Your task to perform on an android device: turn on the 12-hour format for clock Image 0: 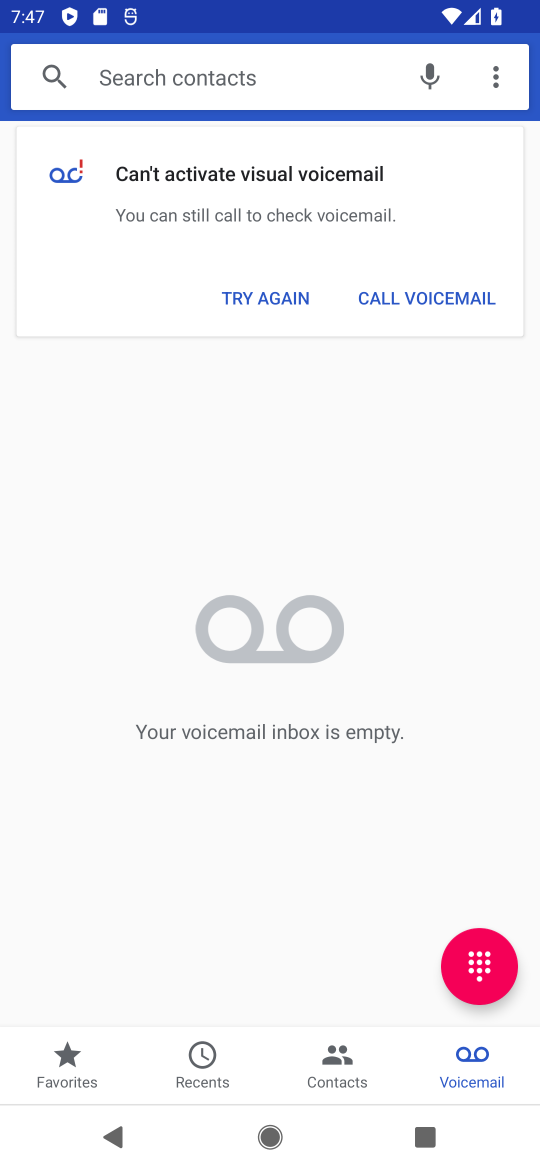
Step 0: press back button
Your task to perform on an android device: turn on the 12-hour format for clock Image 1: 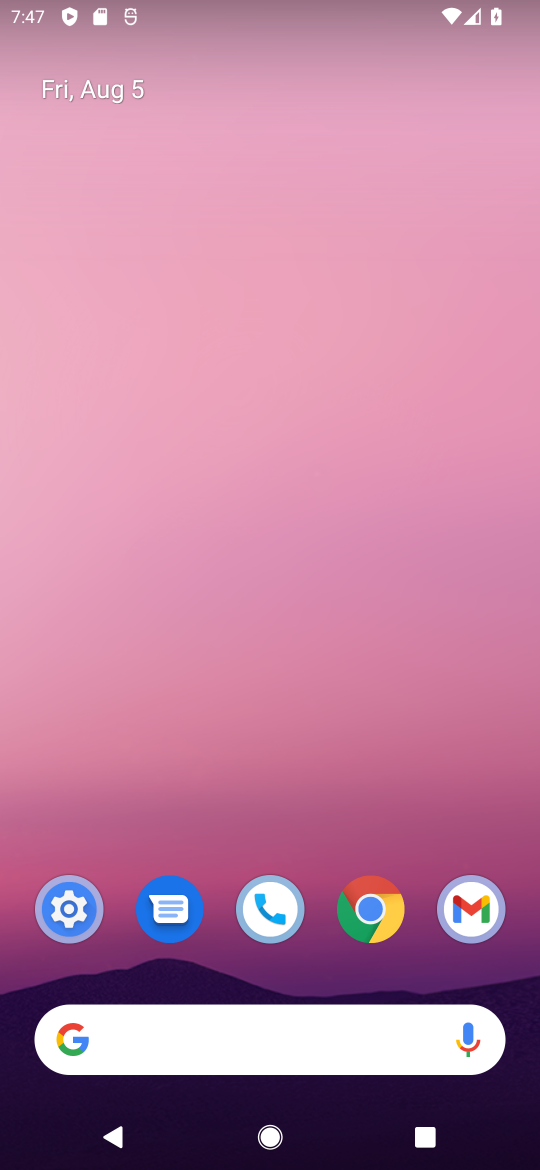
Step 1: drag from (410, 811) to (331, 81)
Your task to perform on an android device: turn on the 12-hour format for clock Image 2: 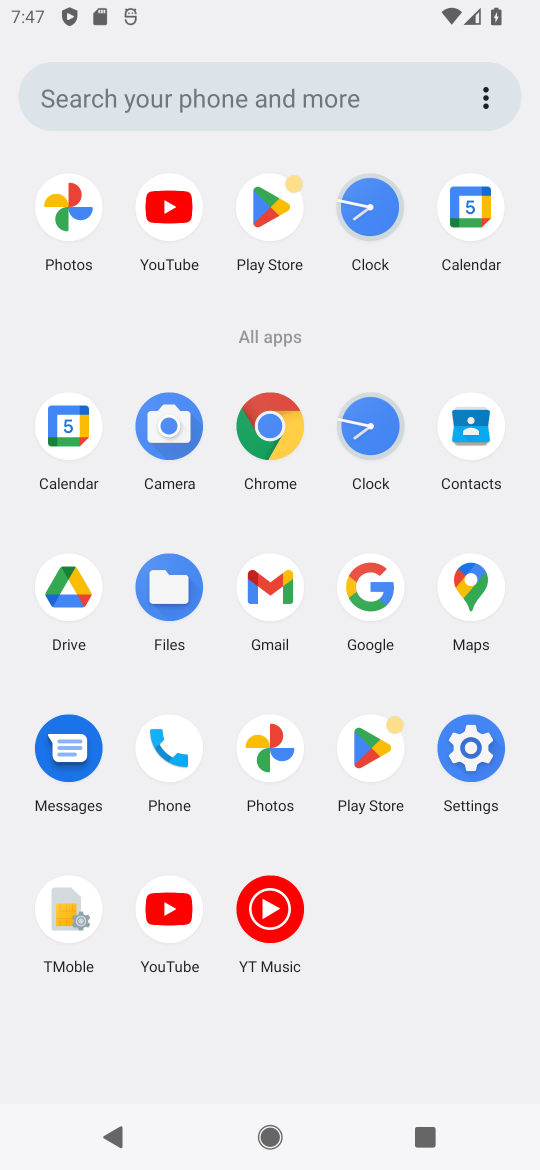
Step 2: click (351, 423)
Your task to perform on an android device: turn on the 12-hour format for clock Image 3: 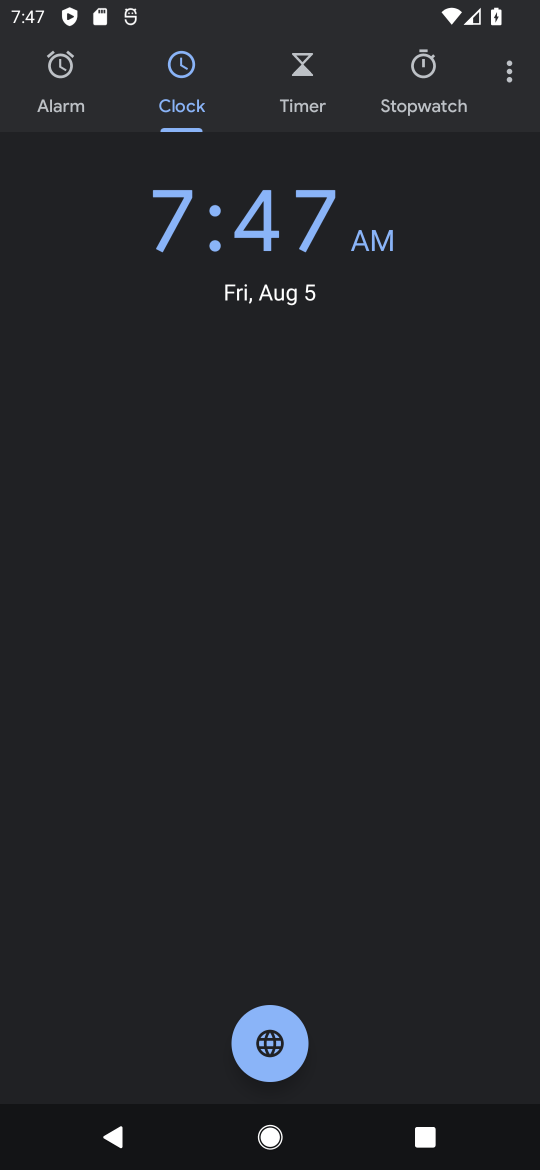
Step 3: click (524, 72)
Your task to perform on an android device: turn on the 12-hour format for clock Image 4: 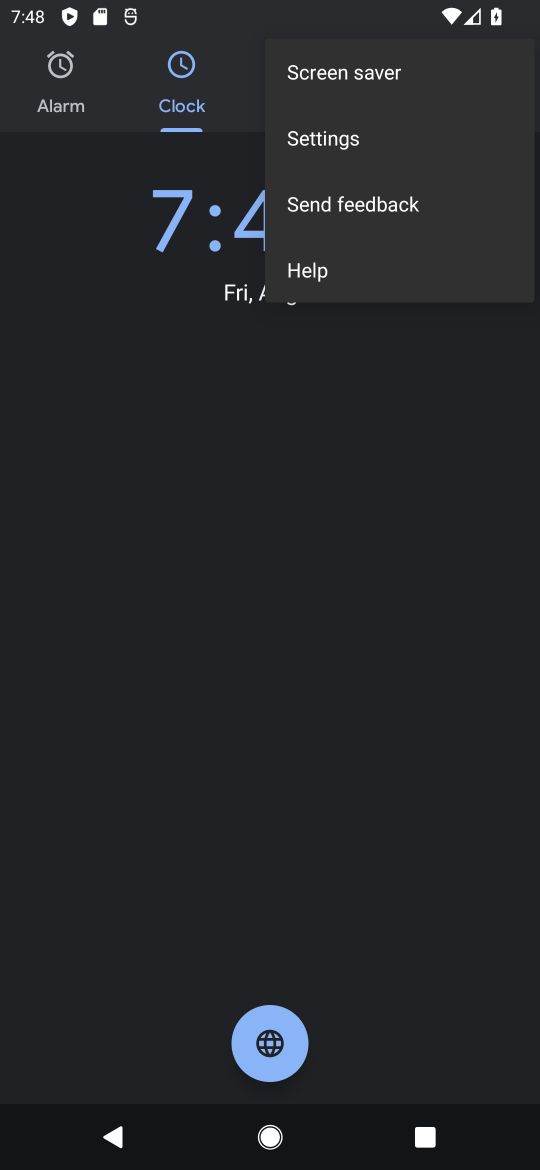
Step 4: click (361, 141)
Your task to perform on an android device: turn on the 12-hour format for clock Image 5: 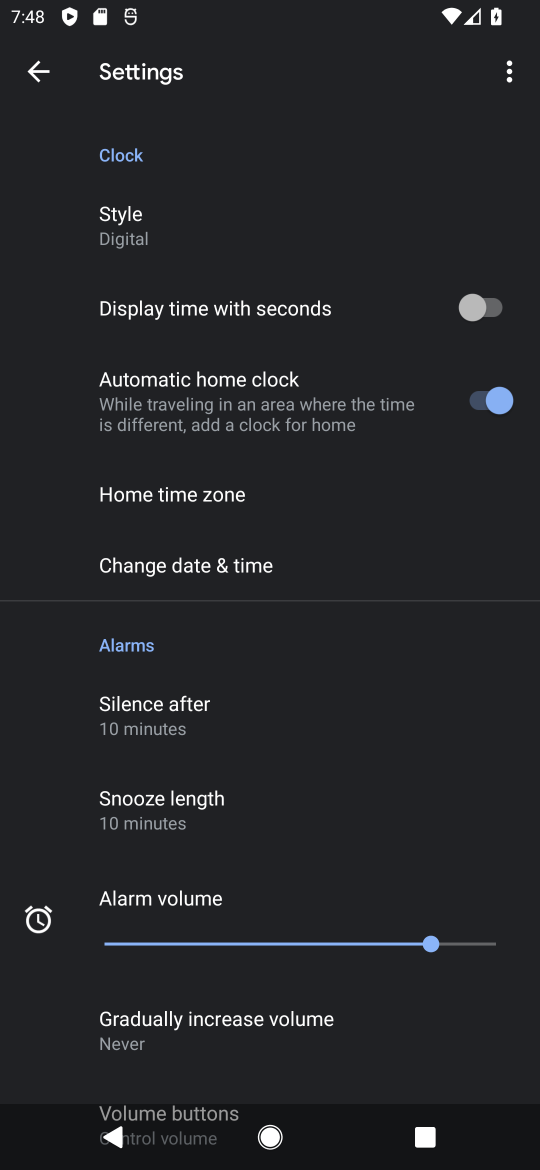
Step 5: click (402, 579)
Your task to perform on an android device: turn on the 12-hour format for clock Image 6: 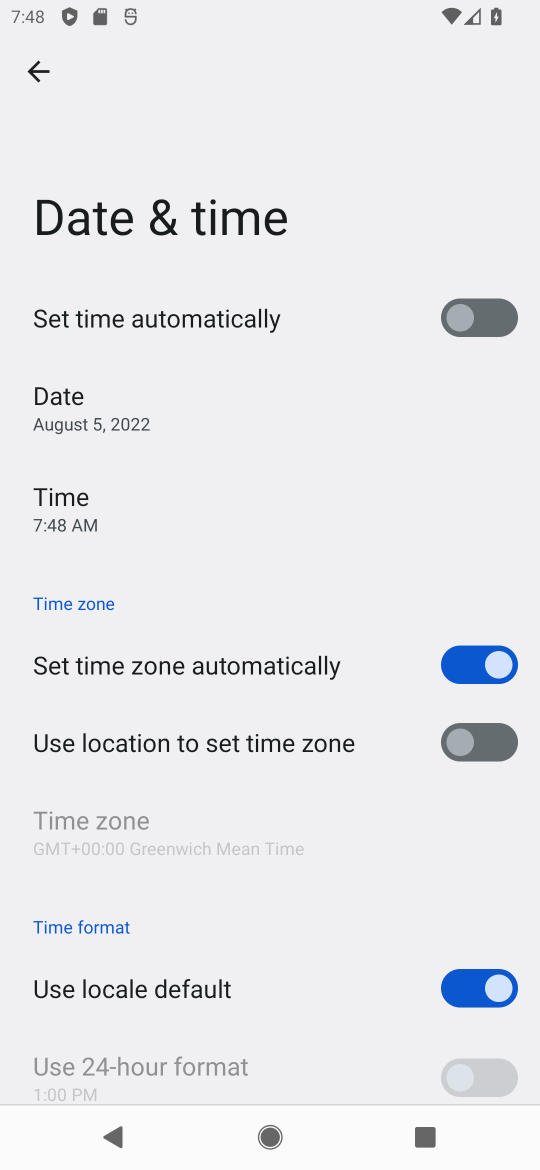
Step 6: task complete